Your task to perform on an android device: Is it going to rain this weekend? Image 0: 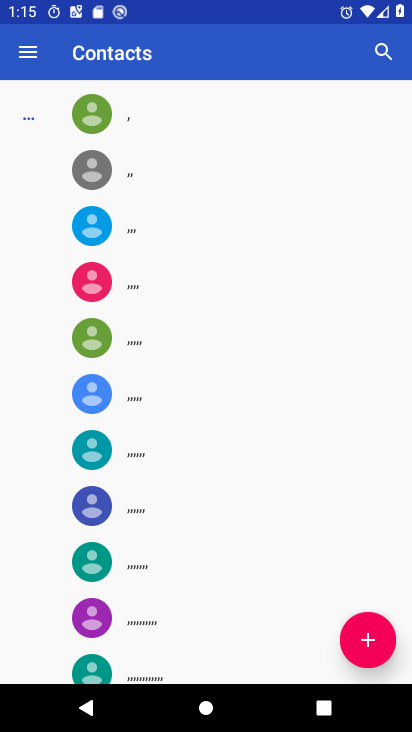
Step 0: press home button
Your task to perform on an android device: Is it going to rain this weekend? Image 1: 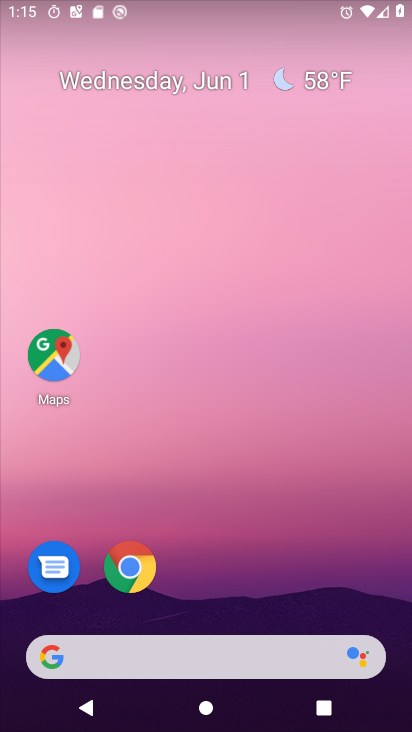
Step 1: drag from (251, 581) to (240, 92)
Your task to perform on an android device: Is it going to rain this weekend? Image 2: 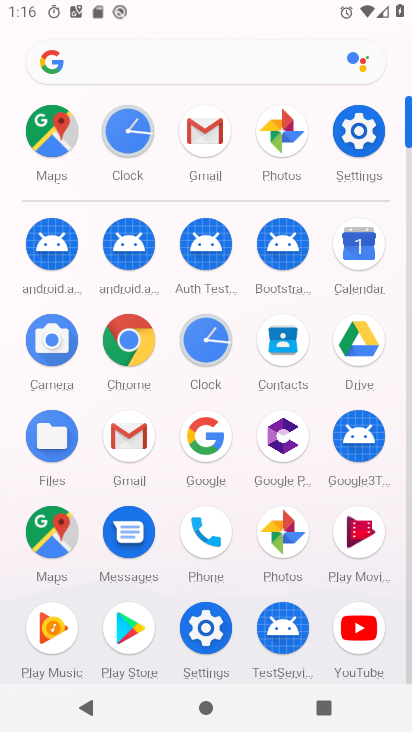
Step 2: click (208, 434)
Your task to perform on an android device: Is it going to rain this weekend? Image 3: 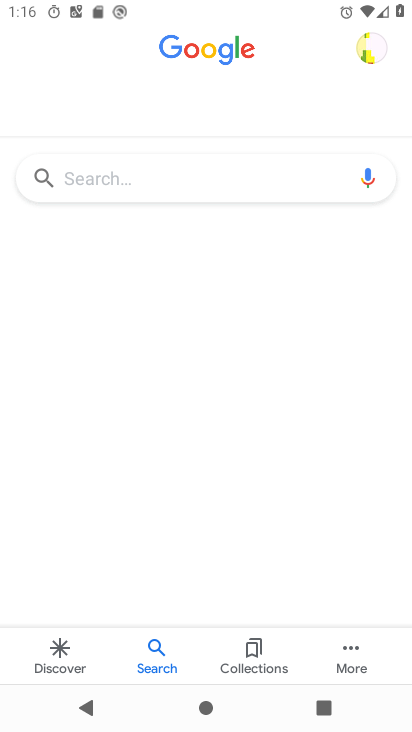
Step 3: click (171, 180)
Your task to perform on an android device: Is it going to rain this weekend? Image 4: 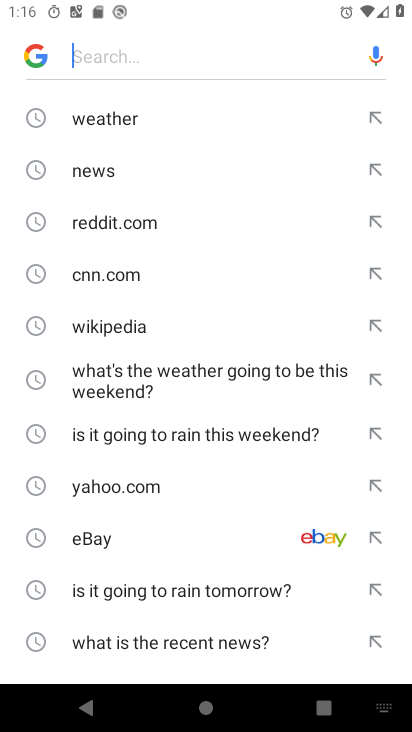
Step 4: click (198, 440)
Your task to perform on an android device: Is it going to rain this weekend? Image 5: 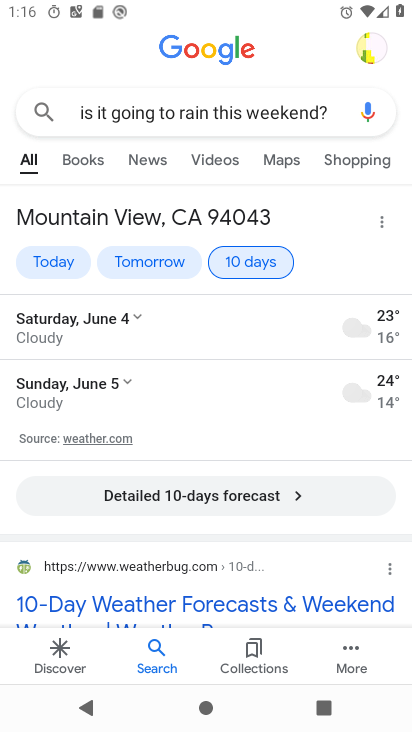
Step 5: task complete